Your task to perform on an android device: turn off javascript in the chrome app Image 0: 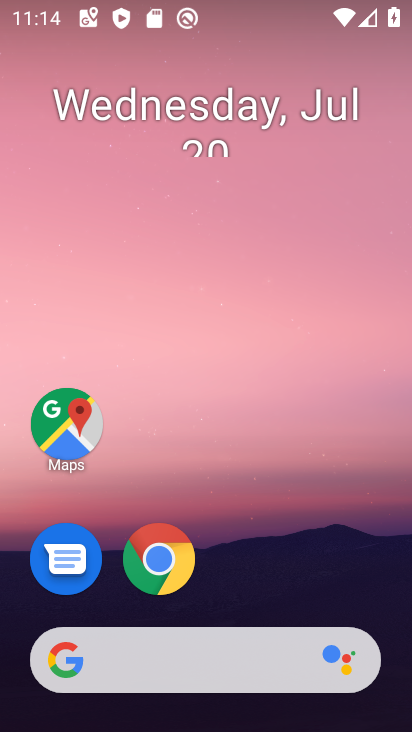
Step 0: drag from (264, 634) to (262, 141)
Your task to perform on an android device: turn off javascript in the chrome app Image 1: 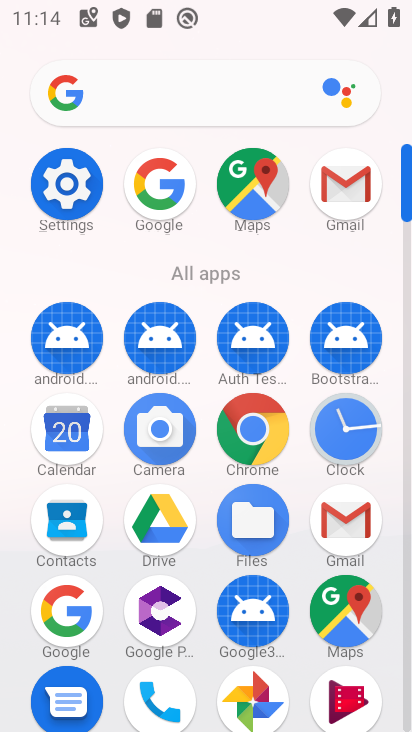
Step 1: click (266, 440)
Your task to perform on an android device: turn off javascript in the chrome app Image 2: 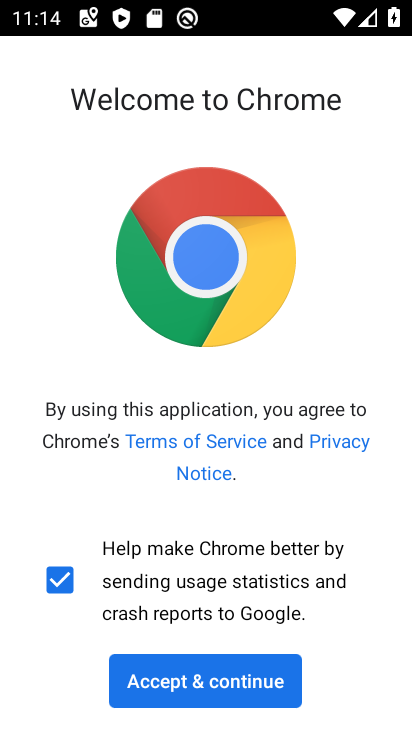
Step 2: click (179, 694)
Your task to perform on an android device: turn off javascript in the chrome app Image 3: 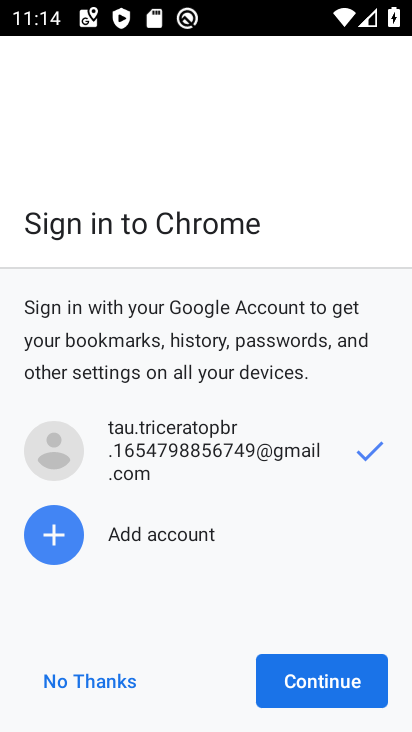
Step 3: click (344, 682)
Your task to perform on an android device: turn off javascript in the chrome app Image 4: 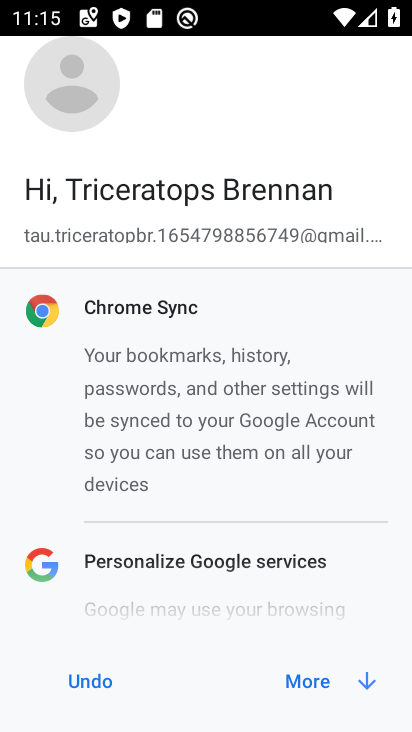
Step 4: click (333, 680)
Your task to perform on an android device: turn off javascript in the chrome app Image 5: 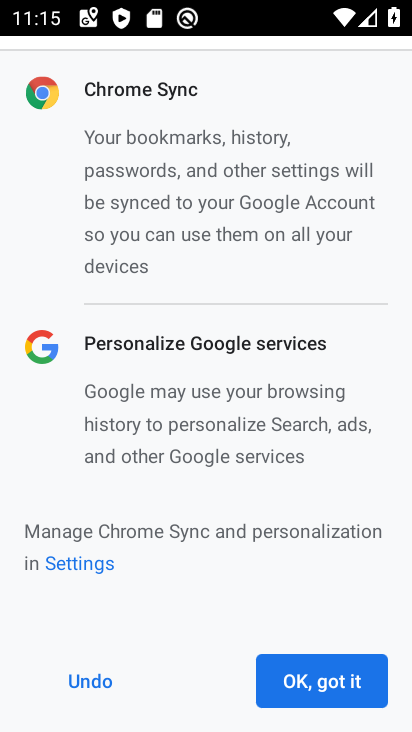
Step 5: click (333, 680)
Your task to perform on an android device: turn off javascript in the chrome app Image 6: 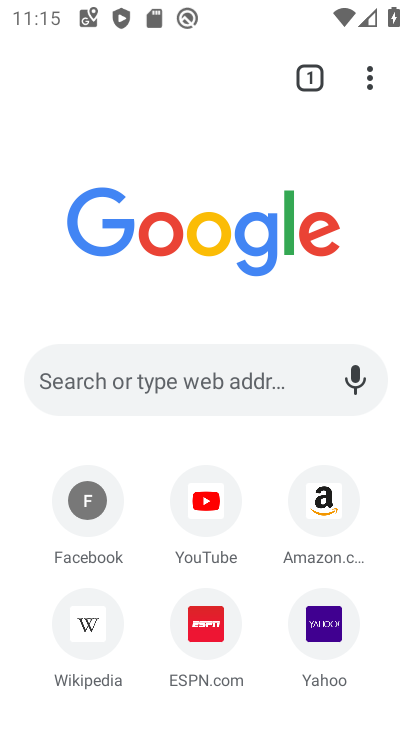
Step 6: click (370, 85)
Your task to perform on an android device: turn off javascript in the chrome app Image 7: 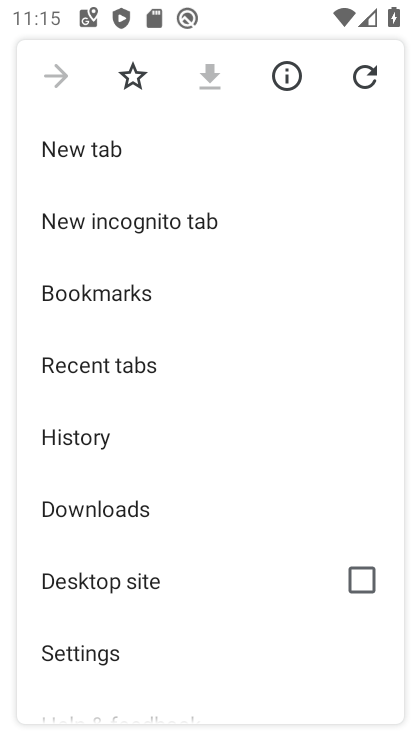
Step 7: click (115, 651)
Your task to perform on an android device: turn off javascript in the chrome app Image 8: 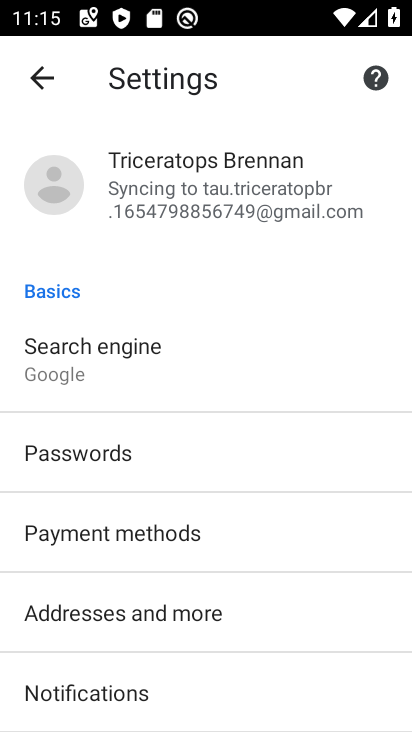
Step 8: drag from (113, 652) to (157, 366)
Your task to perform on an android device: turn off javascript in the chrome app Image 9: 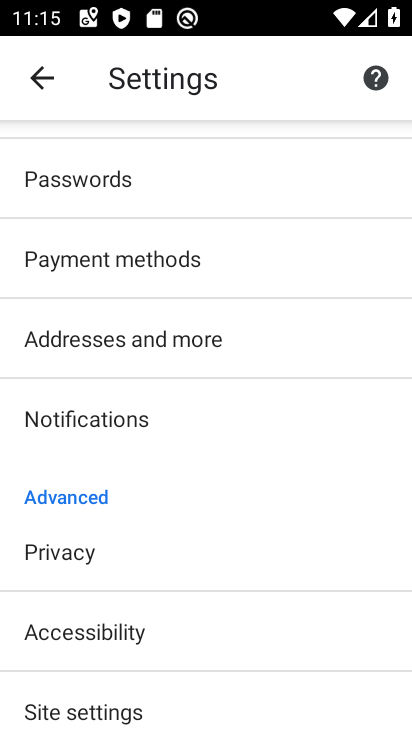
Step 9: click (84, 712)
Your task to perform on an android device: turn off javascript in the chrome app Image 10: 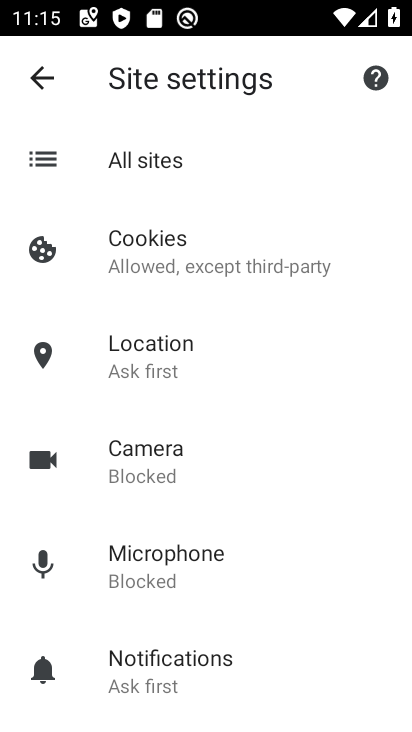
Step 10: drag from (240, 393) to (273, 269)
Your task to perform on an android device: turn off javascript in the chrome app Image 11: 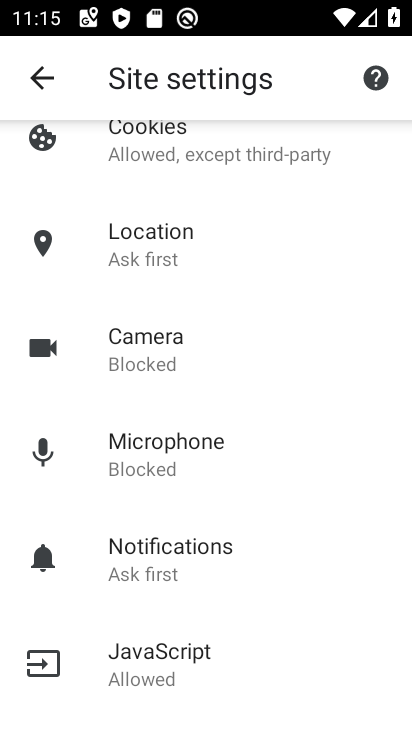
Step 11: click (191, 666)
Your task to perform on an android device: turn off javascript in the chrome app Image 12: 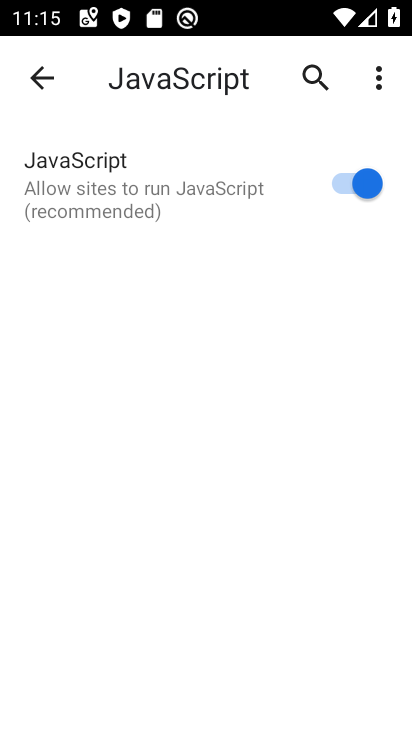
Step 12: click (343, 191)
Your task to perform on an android device: turn off javascript in the chrome app Image 13: 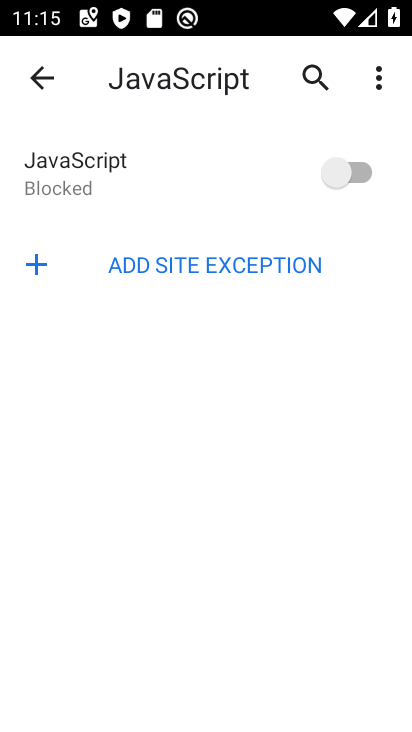
Step 13: task complete